Your task to perform on an android device: Clear all items from cart on newegg. Search for "razer nari" on newegg, select the first entry, add it to the cart, then select checkout. Image 0: 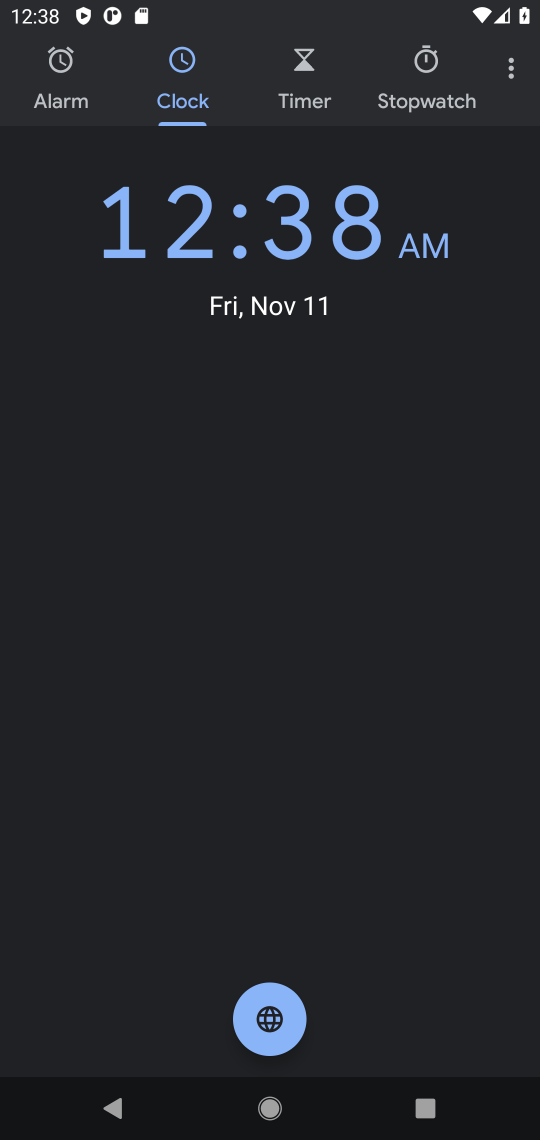
Step 0: press home button
Your task to perform on an android device: Clear all items from cart on newegg. Search for "razer nari" on newegg, select the first entry, add it to the cart, then select checkout. Image 1: 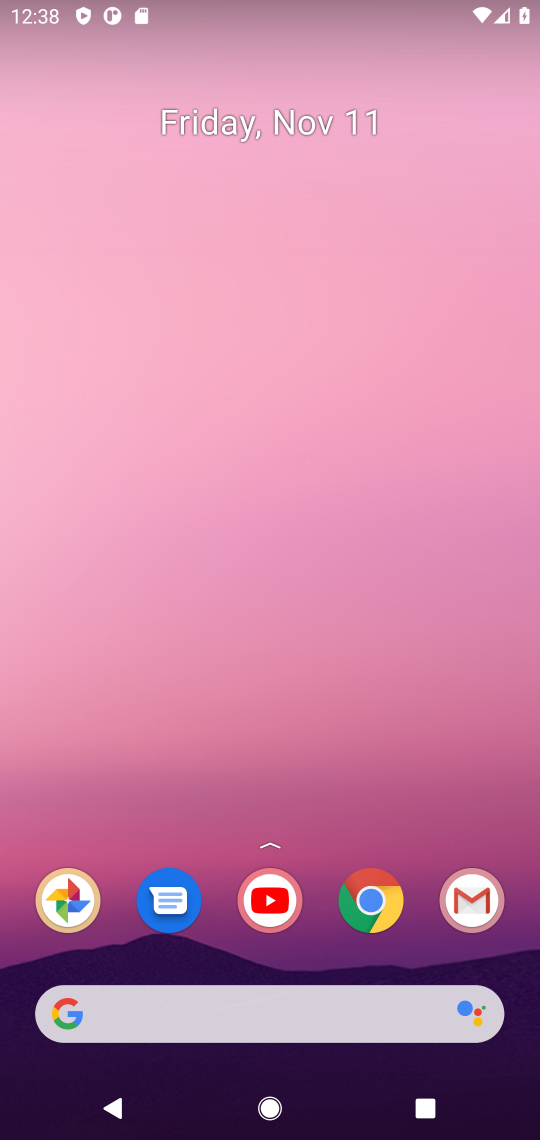
Step 1: click (368, 907)
Your task to perform on an android device: Clear all items from cart on newegg. Search for "razer nari" on newegg, select the first entry, add it to the cart, then select checkout. Image 2: 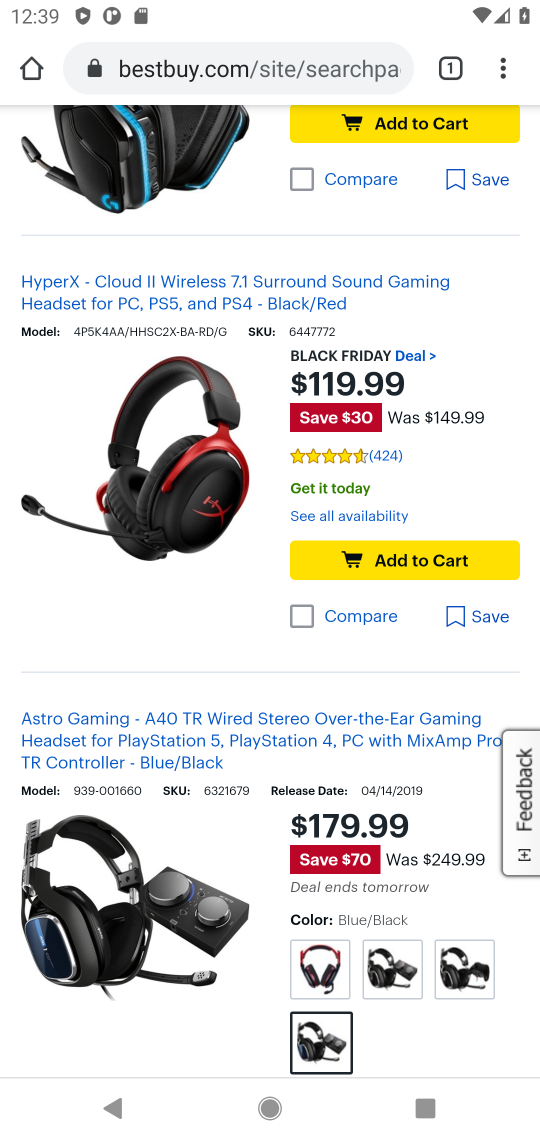
Step 2: click (324, 58)
Your task to perform on an android device: Clear all items from cart on newegg. Search for "razer nari" on newegg, select the first entry, add it to the cart, then select checkout. Image 3: 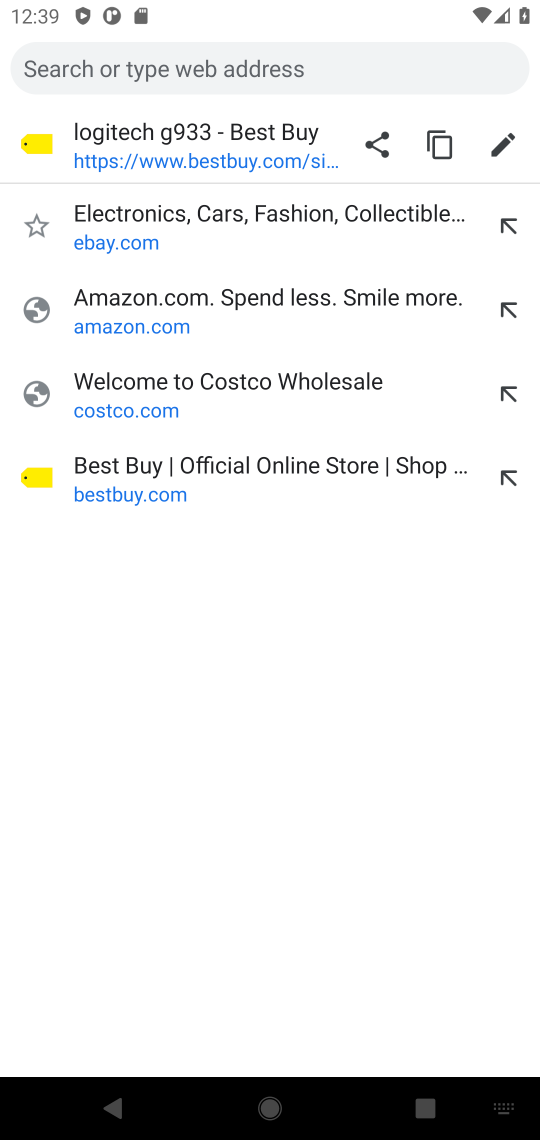
Step 3: type "newegg"
Your task to perform on an android device: Clear all items from cart on newegg. Search for "razer nari" on newegg, select the first entry, add it to the cart, then select checkout. Image 4: 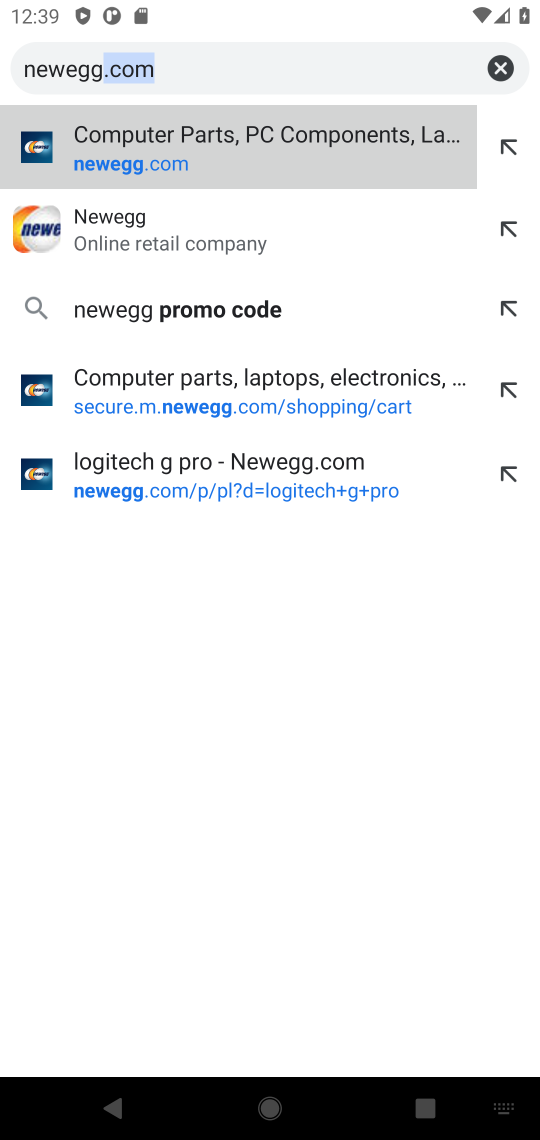
Step 4: press enter
Your task to perform on an android device: Clear all items from cart on newegg. Search for "razer nari" on newegg, select the first entry, add it to the cart, then select checkout. Image 5: 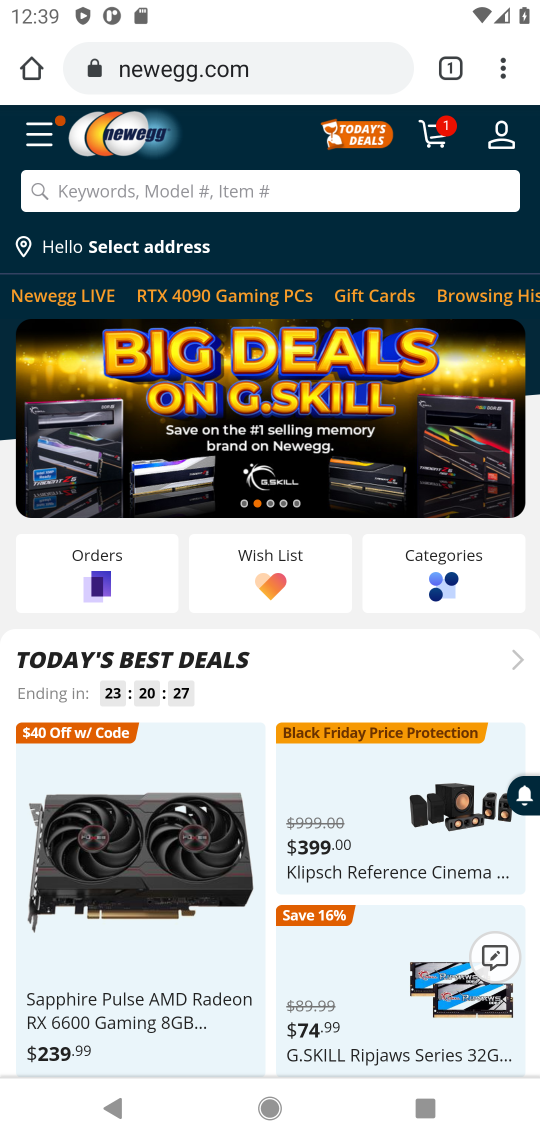
Step 5: click (449, 139)
Your task to perform on an android device: Clear all items from cart on newegg. Search for "razer nari" on newegg, select the first entry, add it to the cart, then select checkout. Image 6: 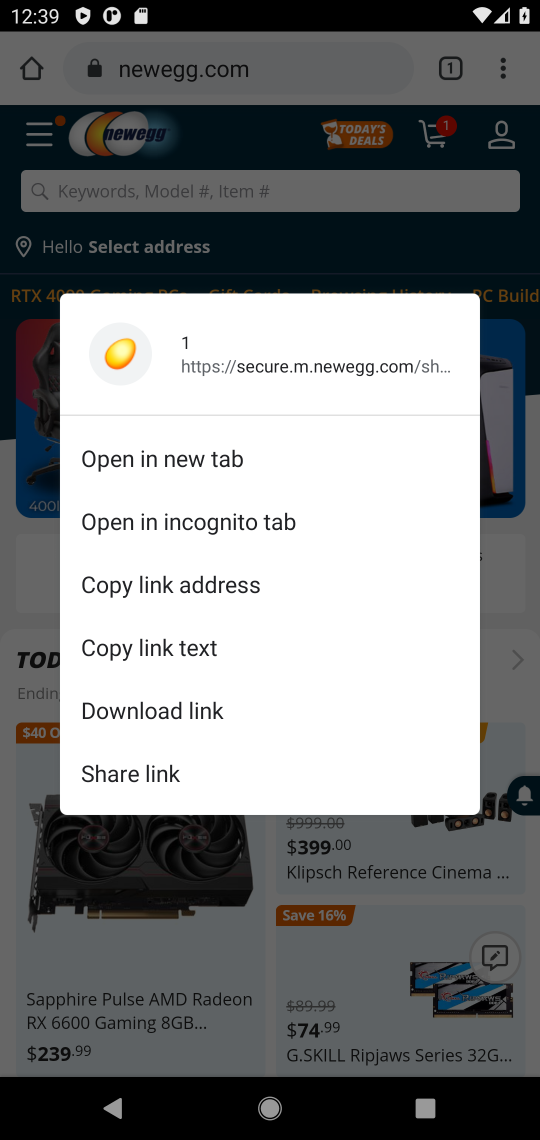
Step 6: click (439, 129)
Your task to perform on an android device: Clear all items from cart on newegg. Search for "razer nari" on newegg, select the first entry, add it to the cart, then select checkout. Image 7: 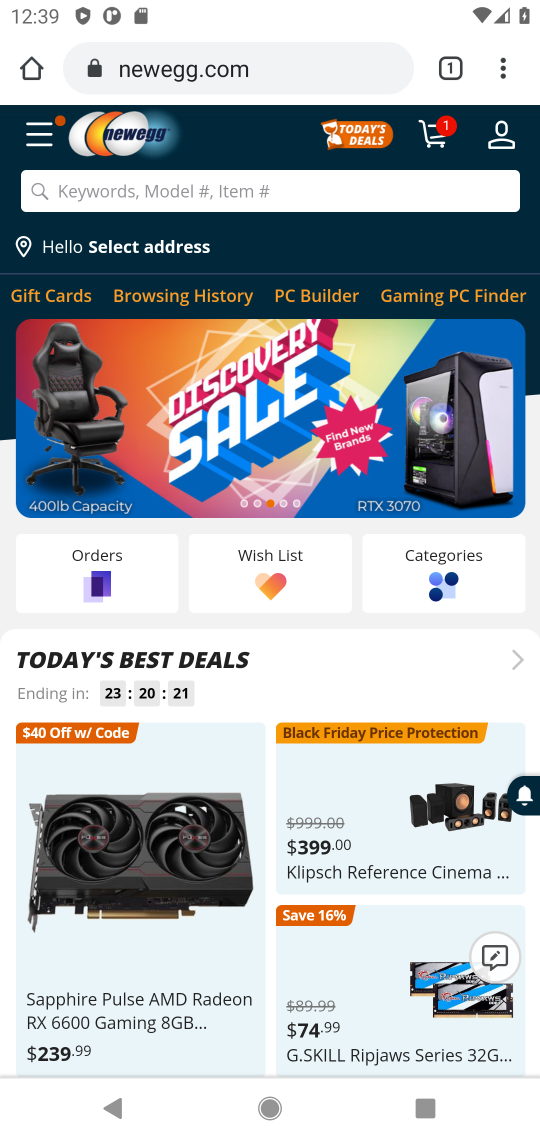
Step 7: click (435, 130)
Your task to perform on an android device: Clear all items from cart on newegg. Search for "razer nari" on newegg, select the first entry, add it to the cart, then select checkout. Image 8: 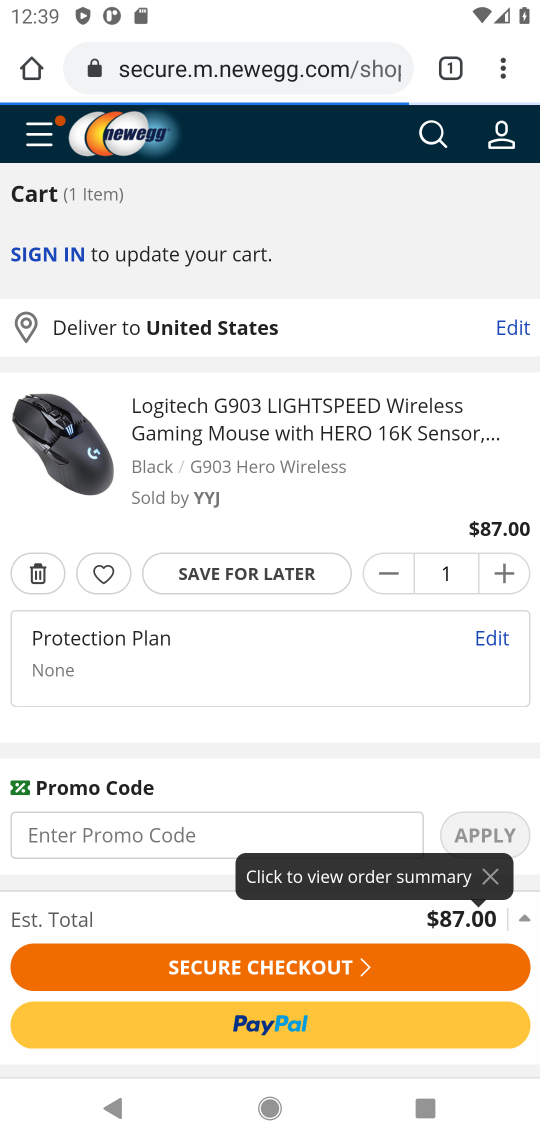
Step 8: click (31, 567)
Your task to perform on an android device: Clear all items from cart on newegg. Search for "razer nari" on newegg, select the first entry, add it to the cart, then select checkout. Image 9: 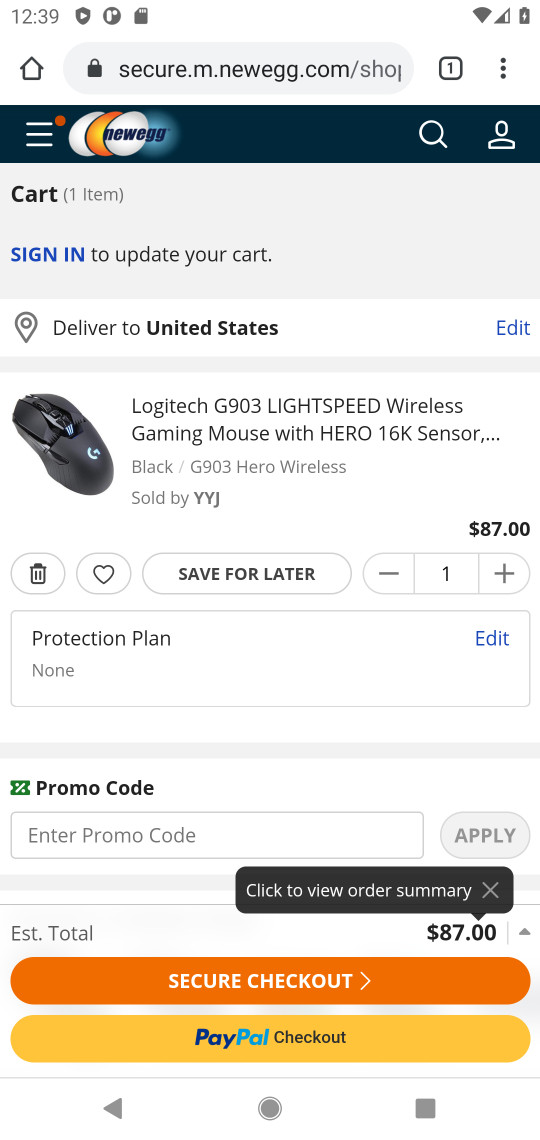
Step 9: click (39, 578)
Your task to perform on an android device: Clear all items from cart on newegg. Search for "razer nari" on newegg, select the first entry, add it to the cart, then select checkout. Image 10: 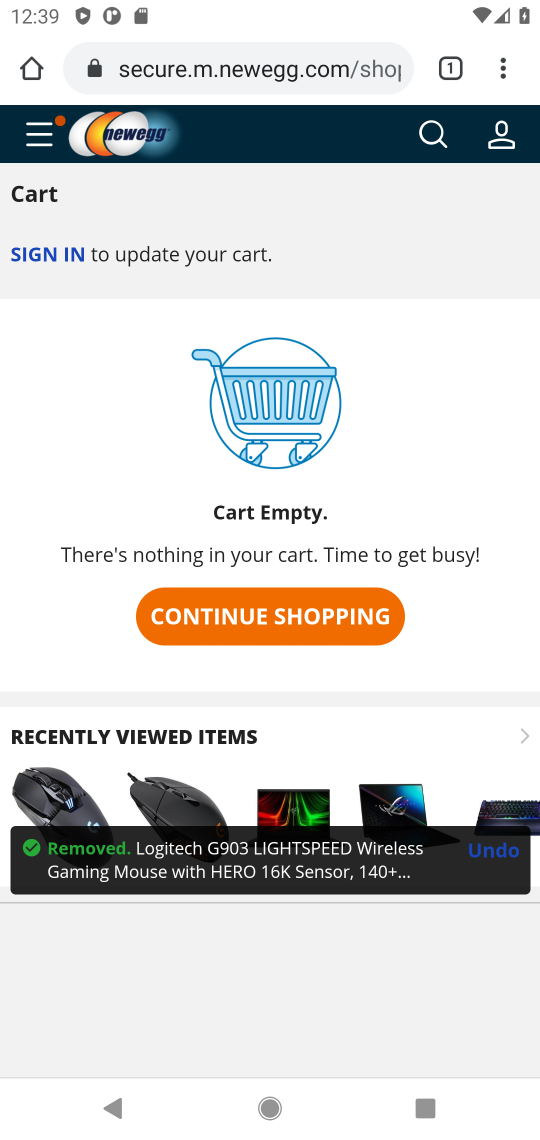
Step 10: click (428, 132)
Your task to perform on an android device: Clear all items from cart on newegg. Search for "razer nari" on newegg, select the first entry, add it to the cart, then select checkout. Image 11: 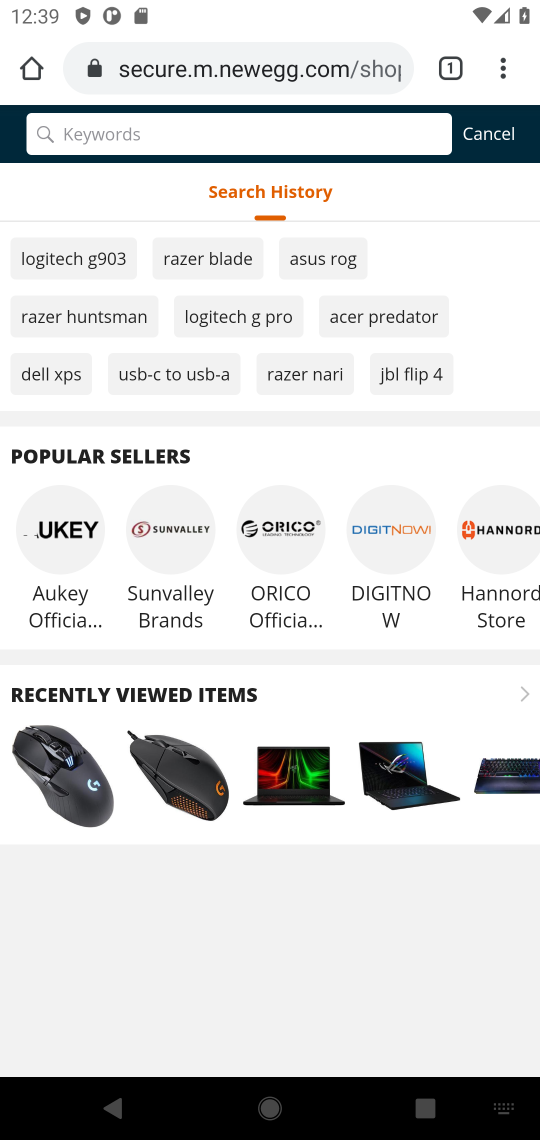
Step 11: click (416, 139)
Your task to perform on an android device: Clear all items from cart on newegg. Search for "razer nari" on newegg, select the first entry, add it to the cart, then select checkout. Image 12: 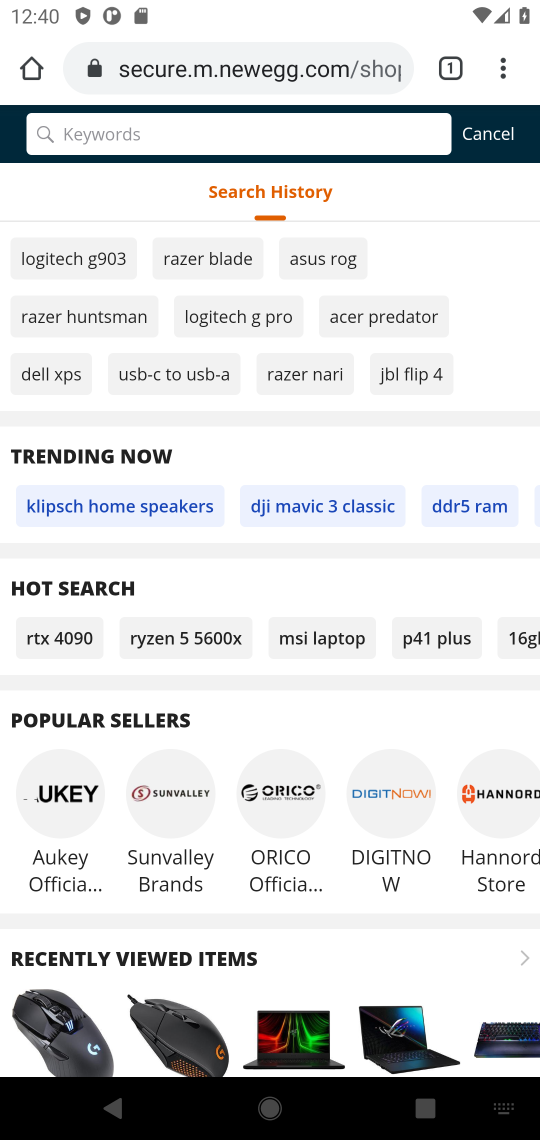
Step 12: type "razer nari"
Your task to perform on an android device: Clear all items from cart on newegg. Search for "razer nari" on newegg, select the first entry, add it to the cart, then select checkout. Image 13: 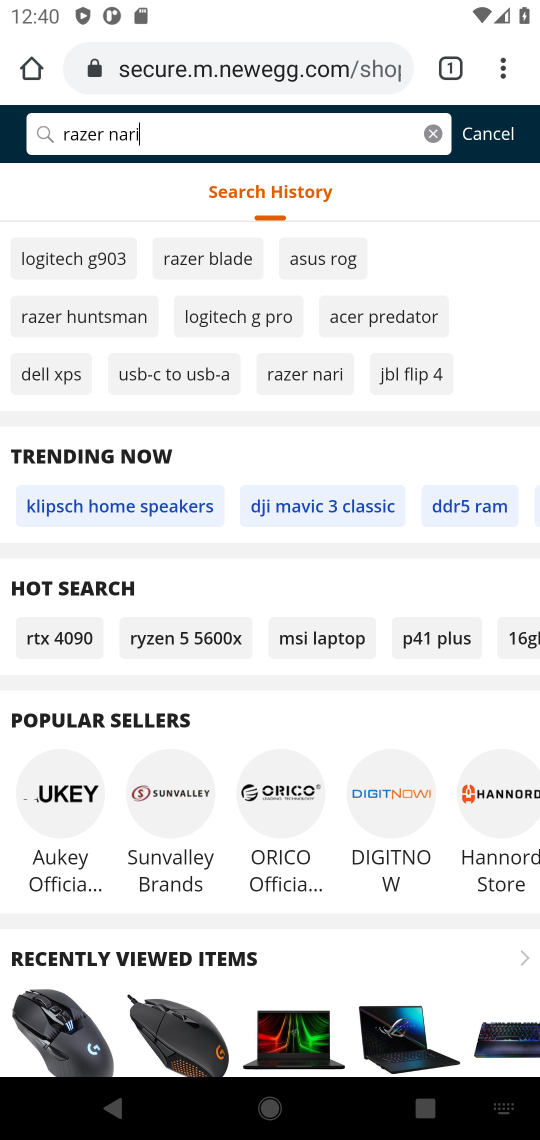
Step 13: press enter
Your task to perform on an android device: Clear all items from cart on newegg. Search for "razer nari" on newegg, select the first entry, add it to the cart, then select checkout. Image 14: 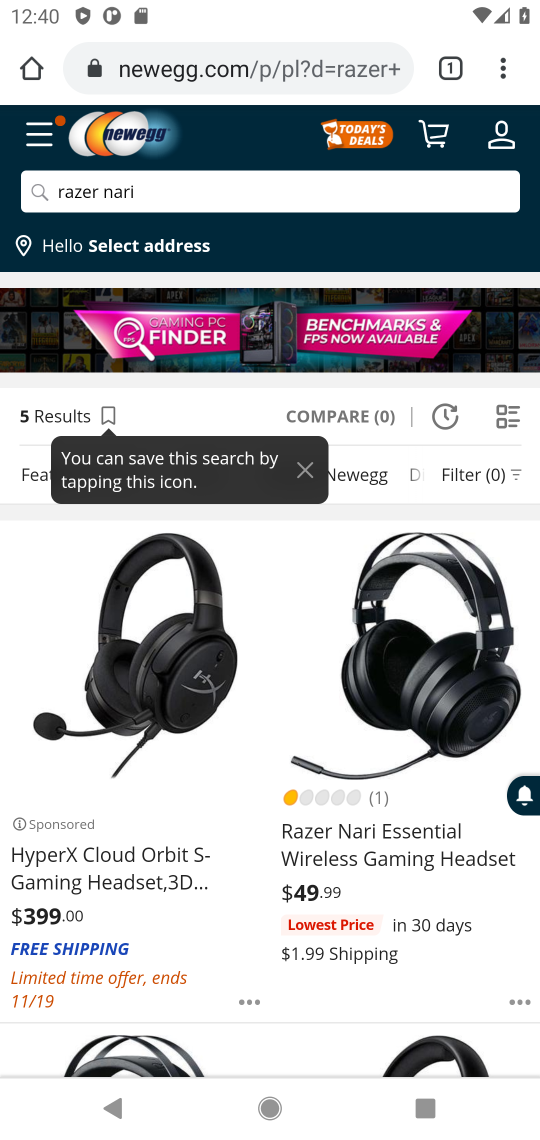
Step 14: task complete